Your task to perform on an android device: Open settings on Google Maps Image 0: 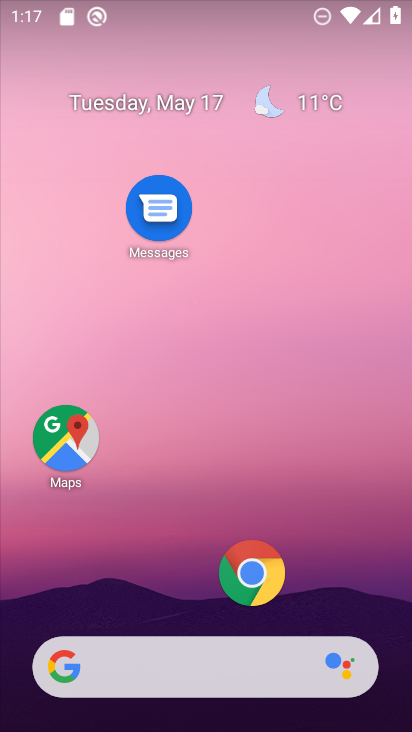
Step 0: click (68, 432)
Your task to perform on an android device: Open settings on Google Maps Image 1: 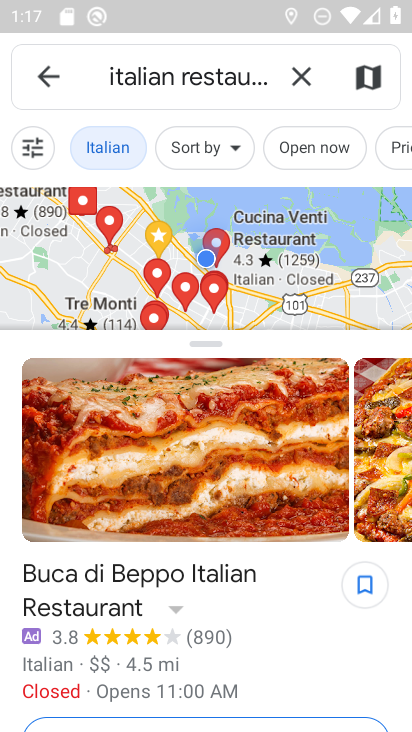
Step 1: click (54, 77)
Your task to perform on an android device: Open settings on Google Maps Image 2: 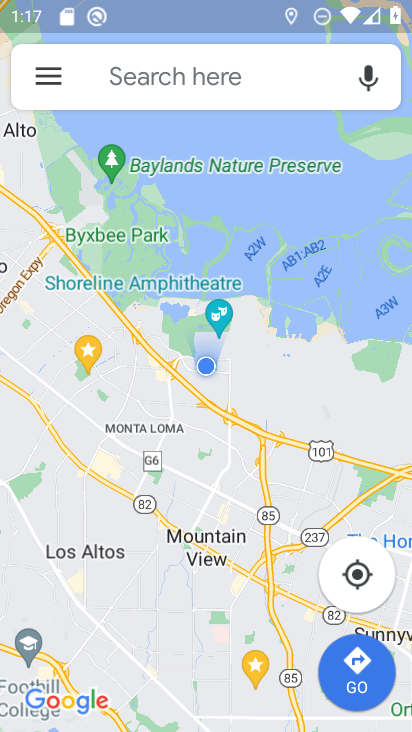
Step 2: click (49, 69)
Your task to perform on an android device: Open settings on Google Maps Image 3: 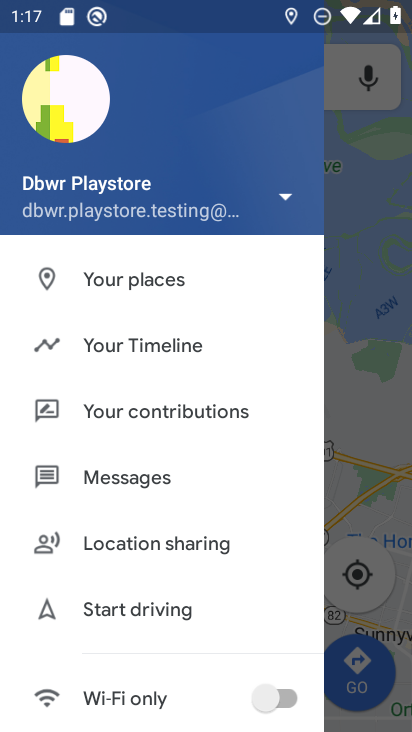
Step 3: drag from (137, 664) to (161, 294)
Your task to perform on an android device: Open settings on Google Maps Image 4: 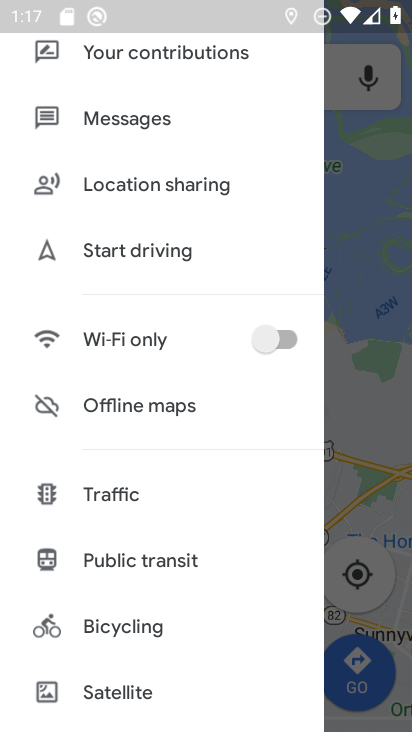
Step 4: drag from (159, 676) to (207, 108)
Your task to perform on an android device: Open settings on Google Maps Image 5: 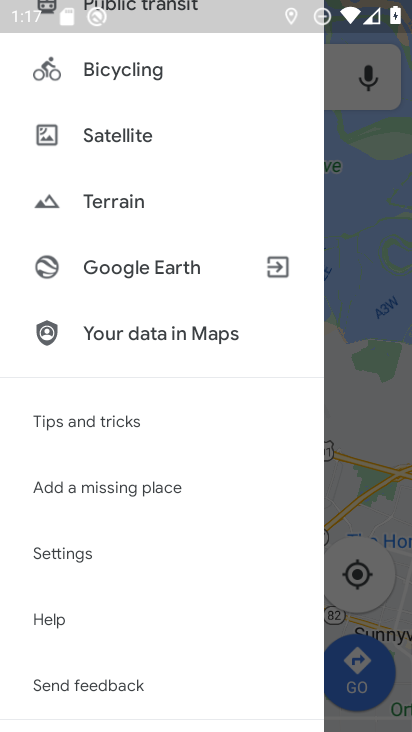
Step 5: click (108, 541)
Your task to perform on an android device: Open settings on Google Maps Image 6: 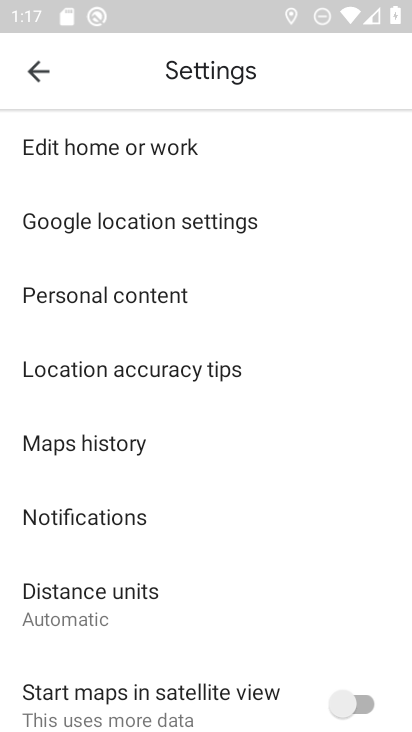
Step 6: task complete